Your task to perform on an android device: turn notification dots on Image 0: 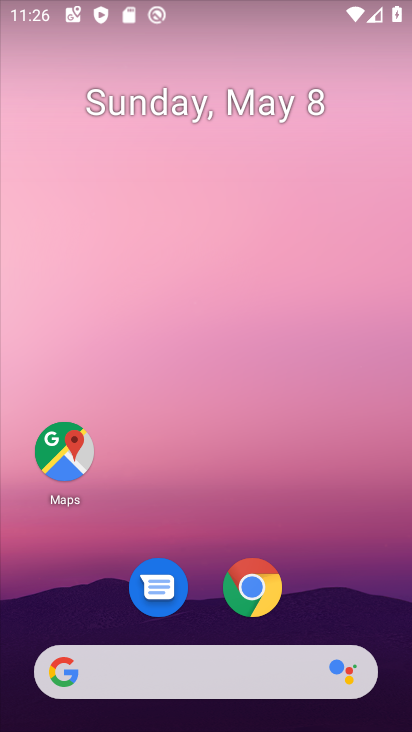
Step 0: drag from (345, 566) to (207, 187)
Your task to perform on an android device: turn notification dots on Image 1: 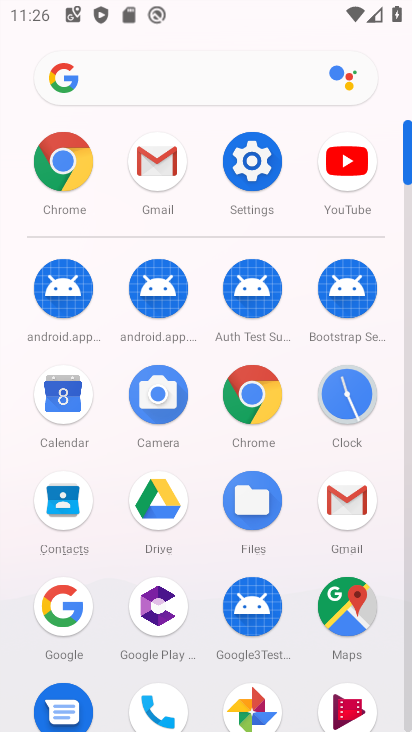
Step 1: click (252, 157)
Your task to perform on an android device: turn notification dots on Image 2: 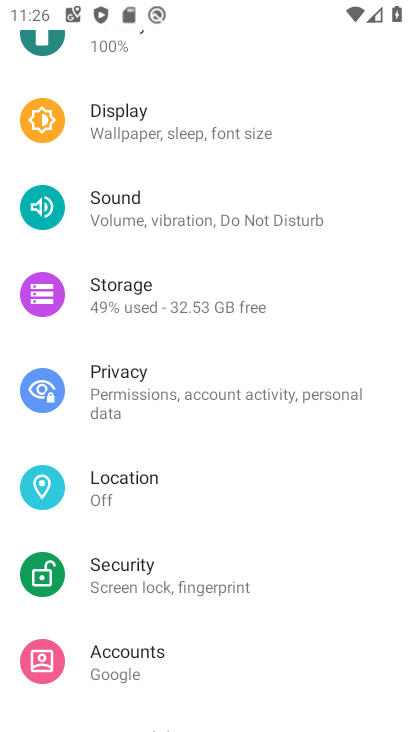
Step 2: drag from (200, 502) to (129, 26)
Your task to perform on an android device: turn notification dots on Image 3: 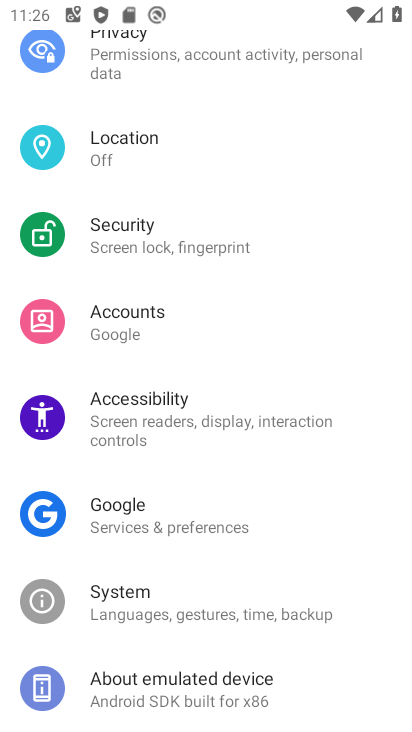
Step 3: drag from (146, 198) to (210, 367)
Your task to perform on an android device: turn notification dots on Image 4: 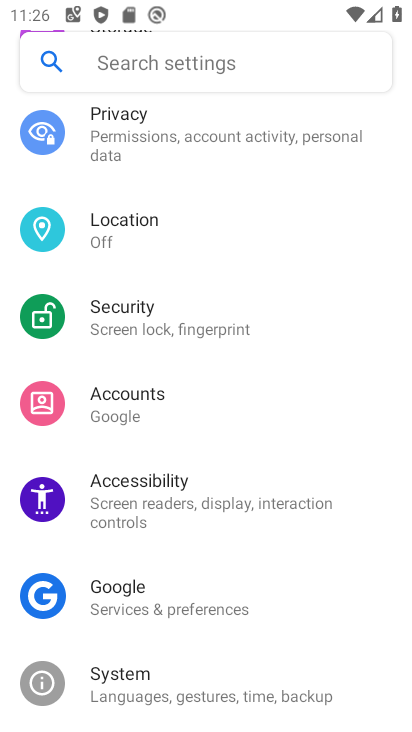
Step 4: drag from (149, 239) to (231, 555)
Your task to perform on an android device: turn notification dots on Image 5: 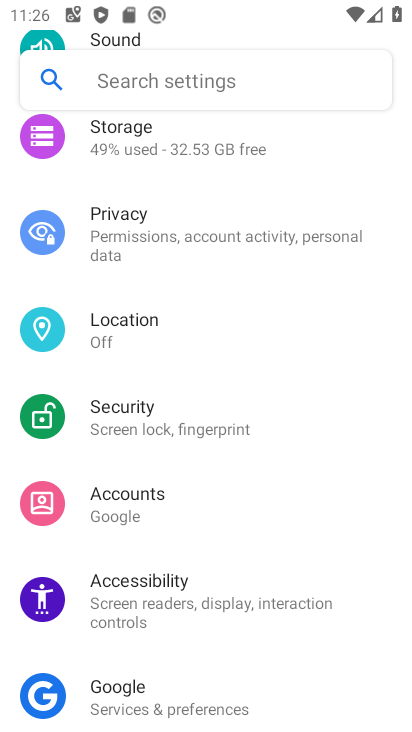
Step 5: drag from (142, 352) to (149, 533)
Your task to perform on an android device: turn notification dots on Image 6: 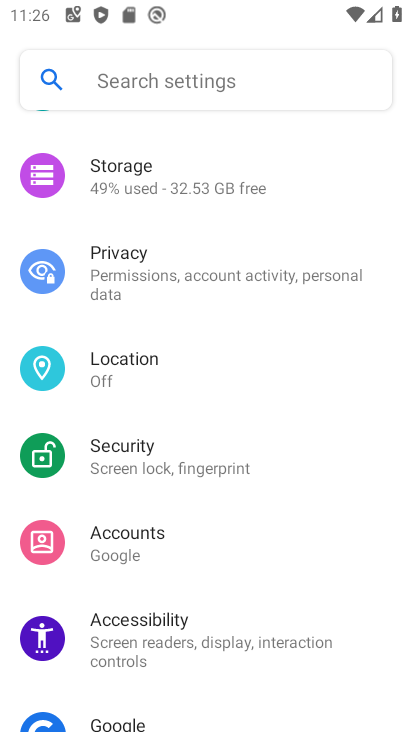
Step 6: drag from (142, 246) to (239, 533)
Your task to perform on an android device: turn notification dots on Image 7: 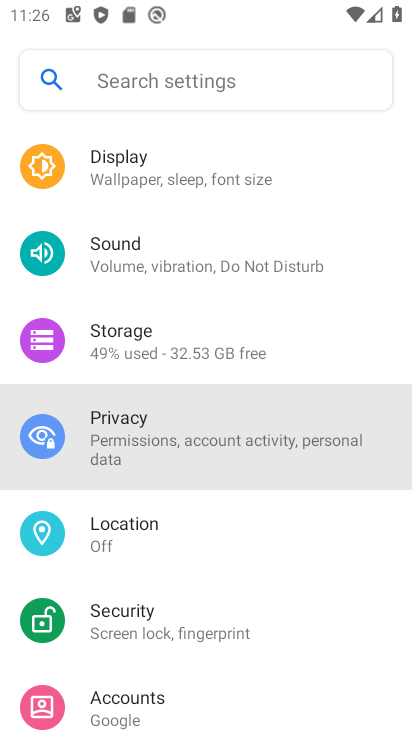
Step 7: drag from (134, 342) to (194, 627)
Your task to perform on an android device: turn notification dots on Image 8: 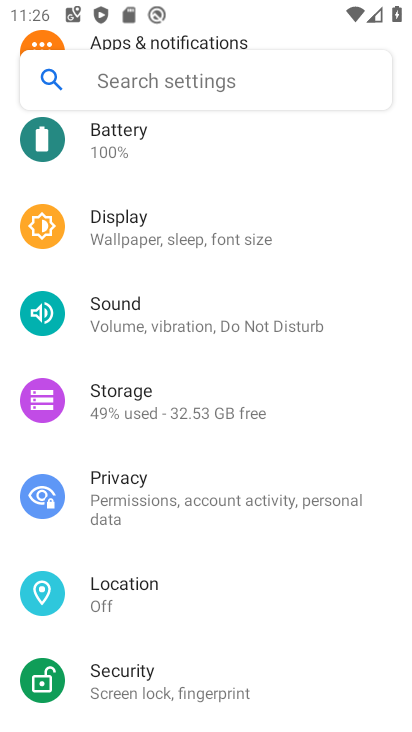
Step 8: drag from (173, 317) to (201, 638)
Your task to perform on an android device: turn notification dots on Image 9: 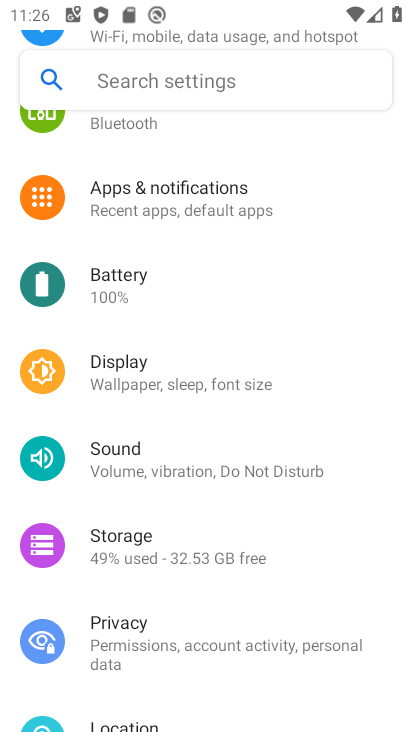
Step 9: drag from (133, 470) to (174, 134)
Your task to perform on an android device: turn notification dots on Image 10: 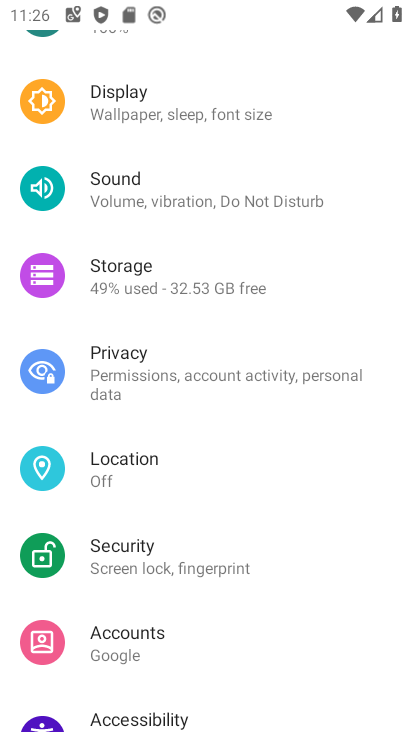
Step 10: drag from (219, 410) to (177, 25)
Your task to perform on an android device: turn notification dots on Image 11: 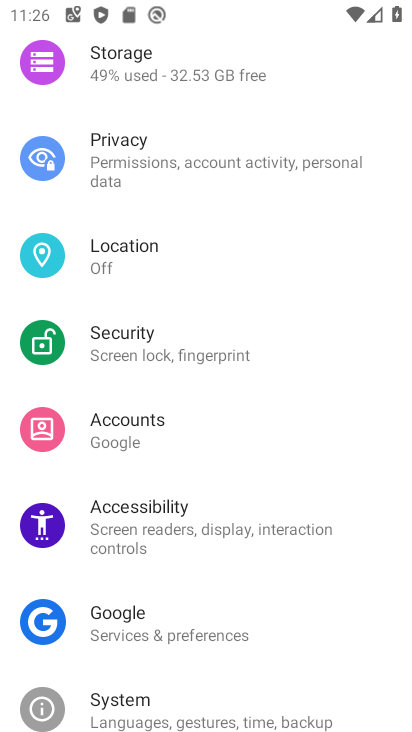
Step 11: drag from (149, 390) to (168, 662)
Your task to perform on an android device: turn notification dots on Image 12: 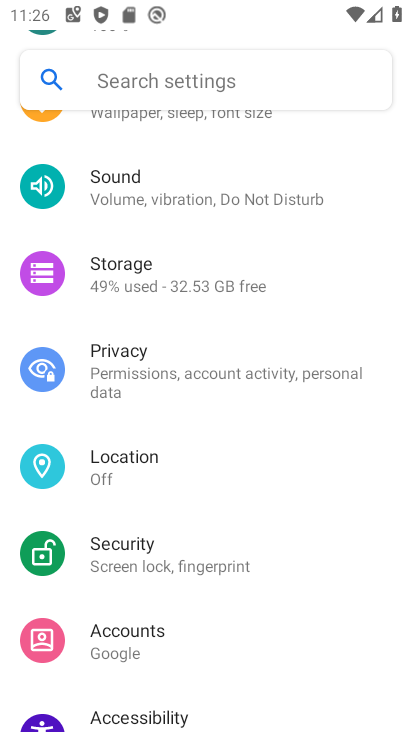
Step 12: drag from (238, 317) to (319, 601)
Your task to perform on an android device: turn notification dots on Image 13: 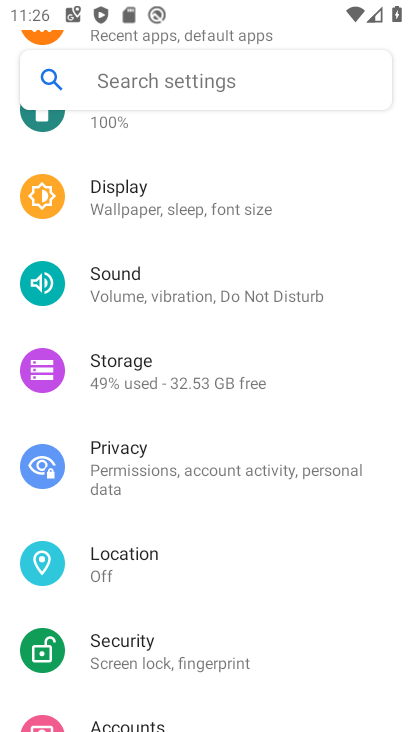
Step 13: click (291, 512)
Your task to perform on an android device: turn notification dots on Image 14: 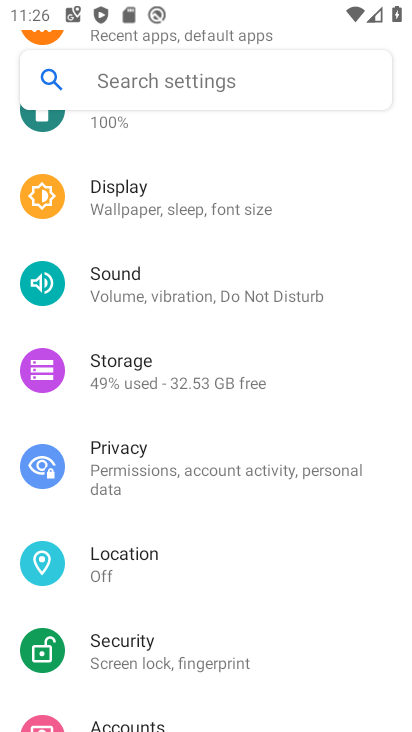
Step 14: drag from (199, 273) to (266, 576)
Your task to perform on an android device: turn notification dots on Image 15: 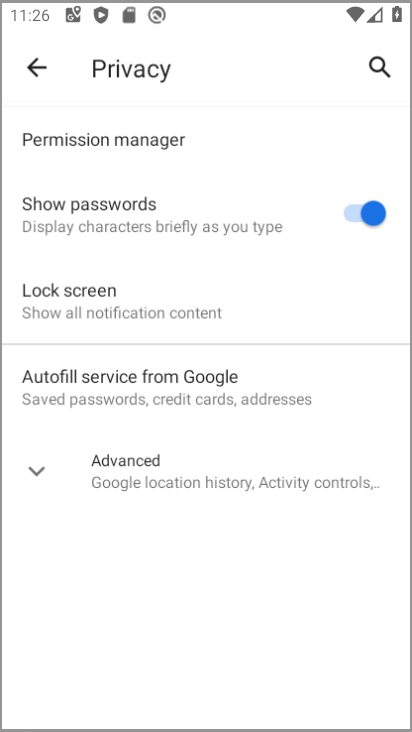
Step 15: drag from (247, 223) to (353, 626)
Your task to perform on an android device: turn notification dots on Image 16: 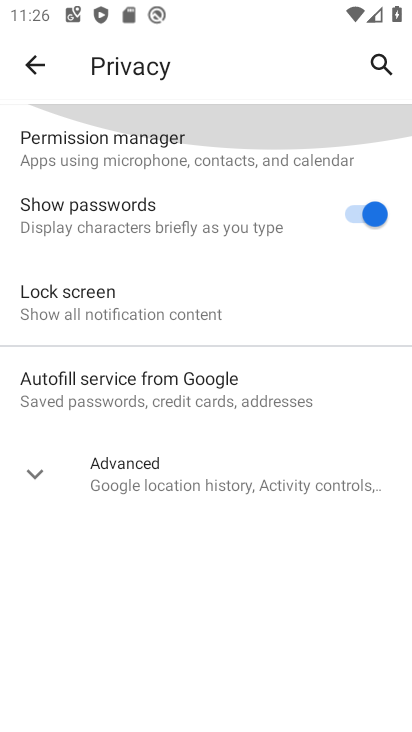
Step 16: drag from (290, 186) to (272, 588)
Your task to perform on an android device: turn notification dots on Image 17: 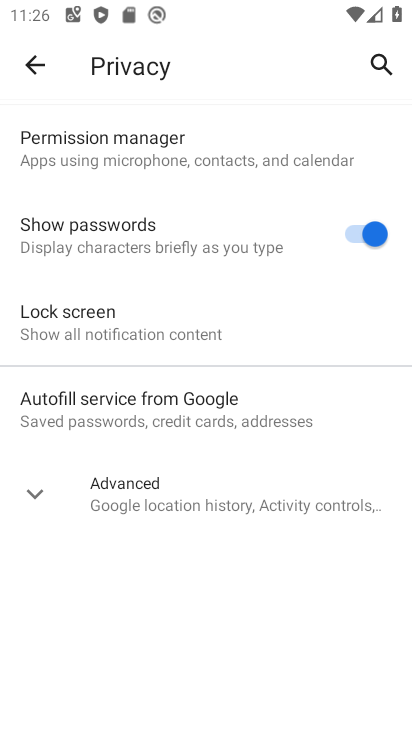
Step 17: click (33, 67)
Your task to perform on an android device: turn notification dots on Image 18: 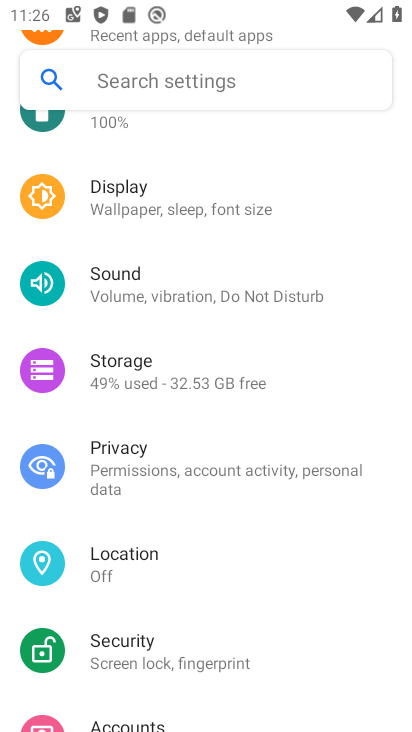
Step 18: drag from (136, 273) to (176, 478)
Your task to perform on an android device: turn notification dots on Image 19: 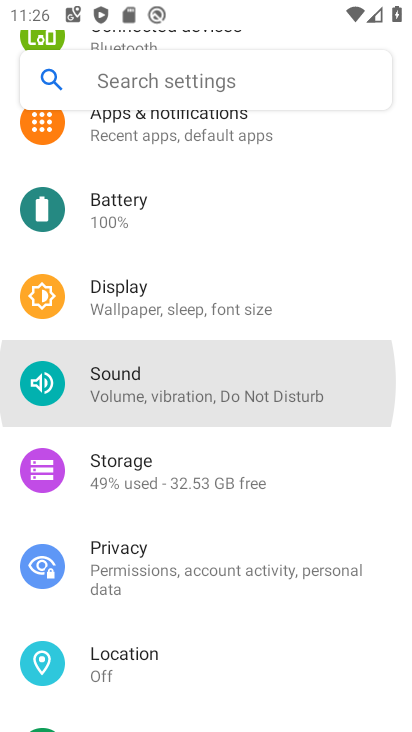
Step 19: drag from (102, 211) to (158, 493)
Your task to perform on an android device: turn notification dots on Image 20: 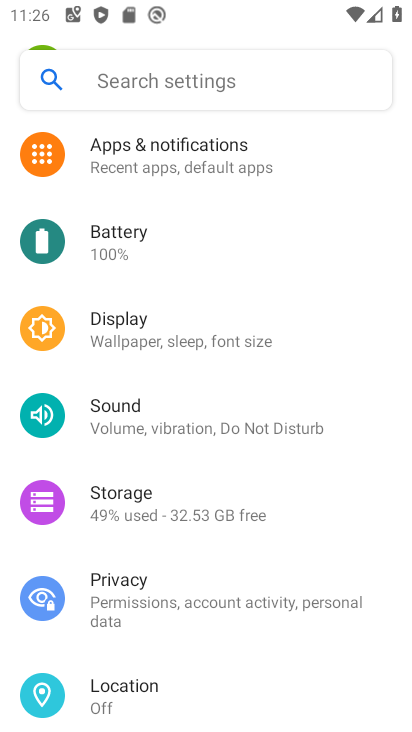
Step 20: drag from (136, 310) to (252, 547)
Your task to perform on an android device: turn notification dots on Image 21: 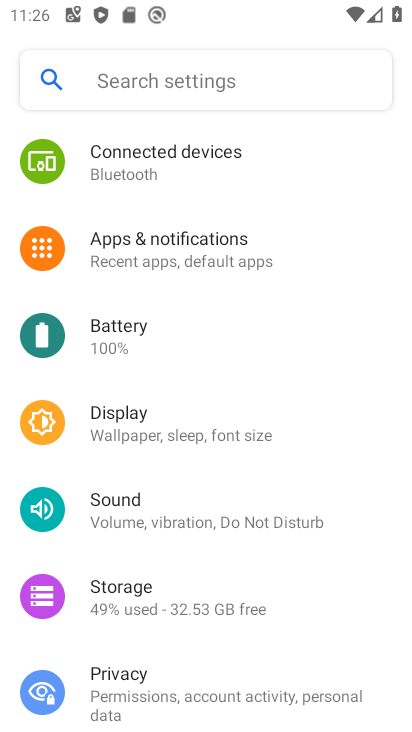
Step 21: click (159, 258)
Your task to perform on an android device: turn notification dots on Image 22: 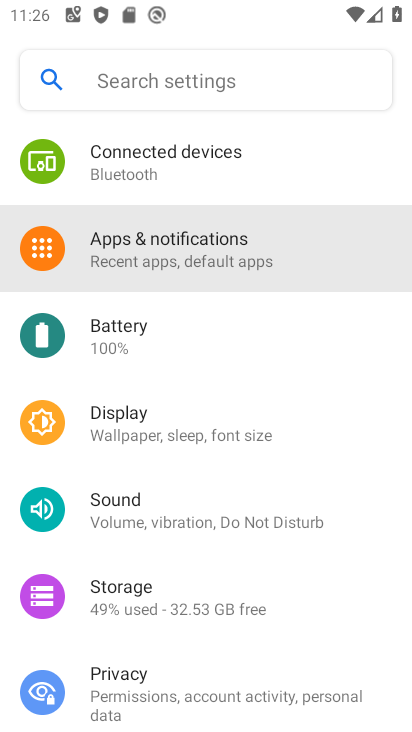
Step 22: click (160, 256)
Your task to perform on an android device: turn notification dots on Image 23: 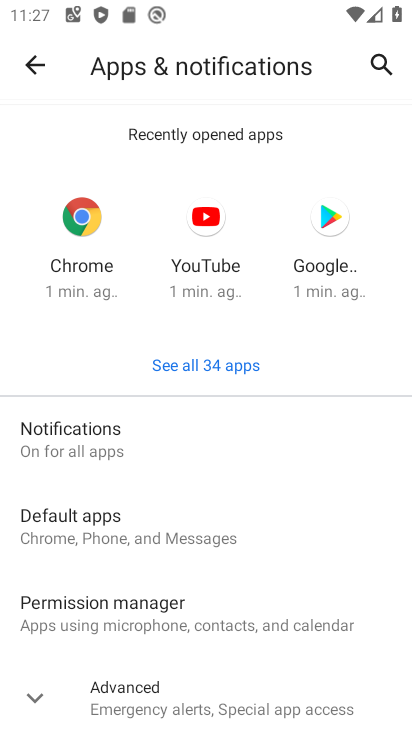
Step 23: click (75, 437)
Your task to perform on an android device: turn notification dots on Image 24: 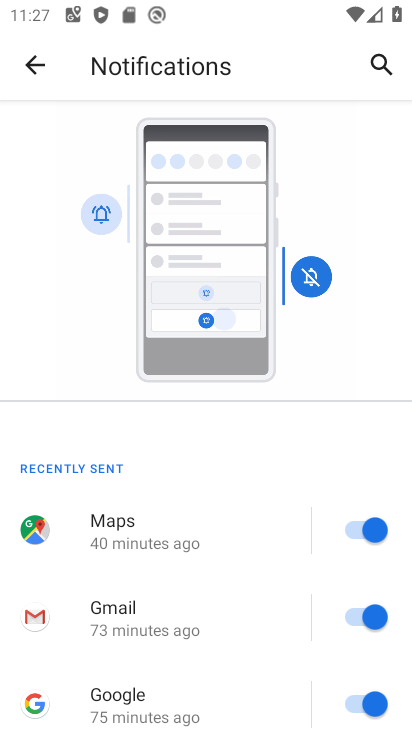
Step 24: click (36, 62)
Your task to perform on an android device: turn notification dots on Image 25: 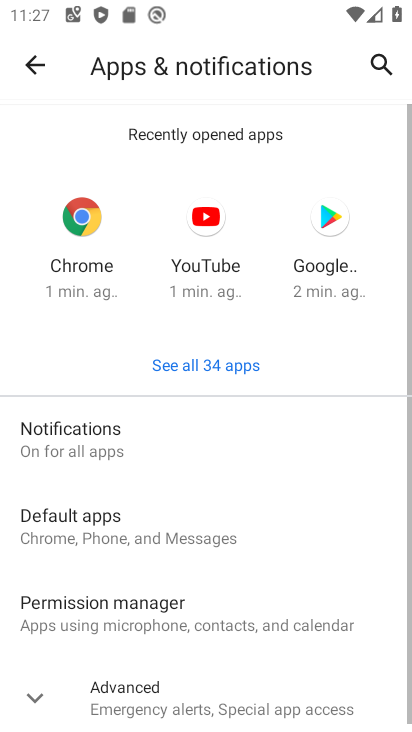
Step 25: drag from (271, 613) to (200, 155)
Your task to perform on an android device: turn notification dots on Image 26: 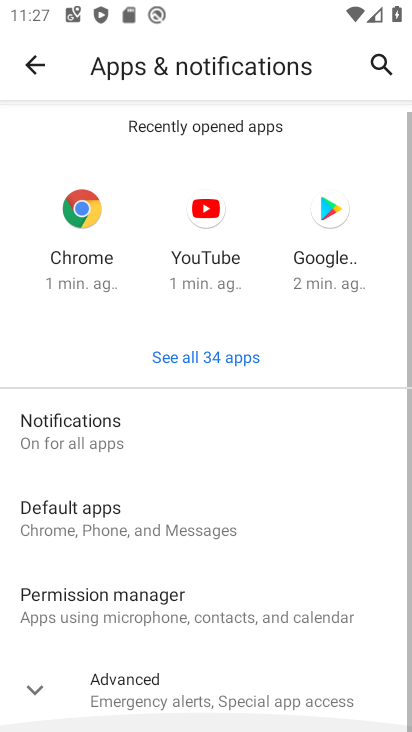
Step 26: drag from (222, 462) to (205, 156)
Your task to perform on an android device: turn notification dots on Image 27: 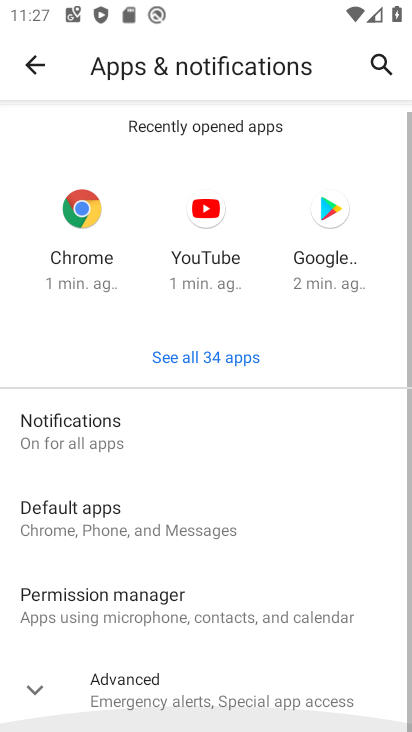
Step 27: drag from (207, 572) to (193, 239)
Your task to perform on an android device: turn notification dots on Image 28: 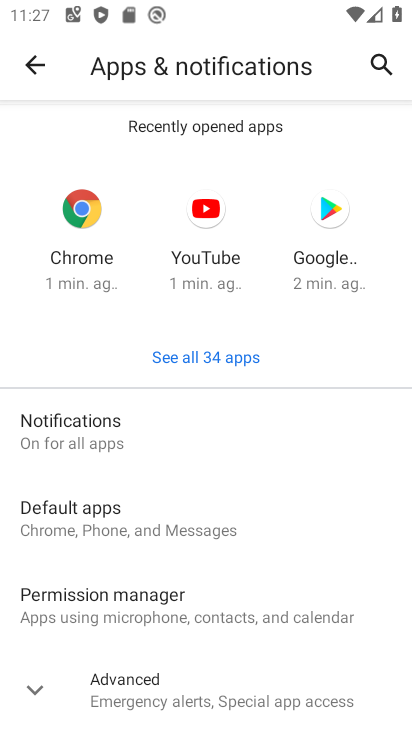
Step 28: click (133, 689)
Your task to perform on an android device: turn notification dots on Image 29: 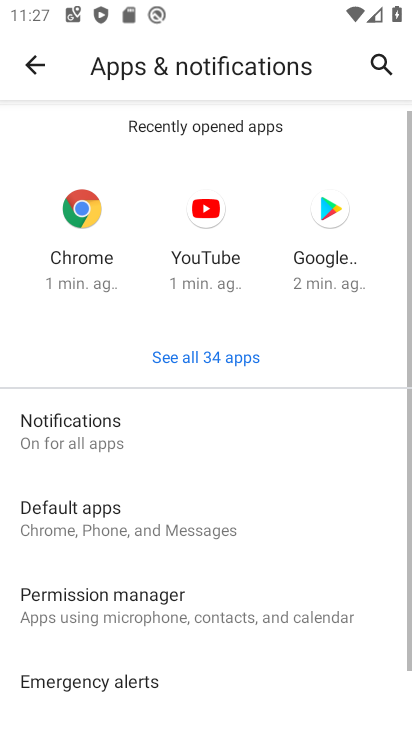
Step 29: drag from (204, 628) to (120, 191)
Your task to perform on an android device: turn notification dots on Image 30: 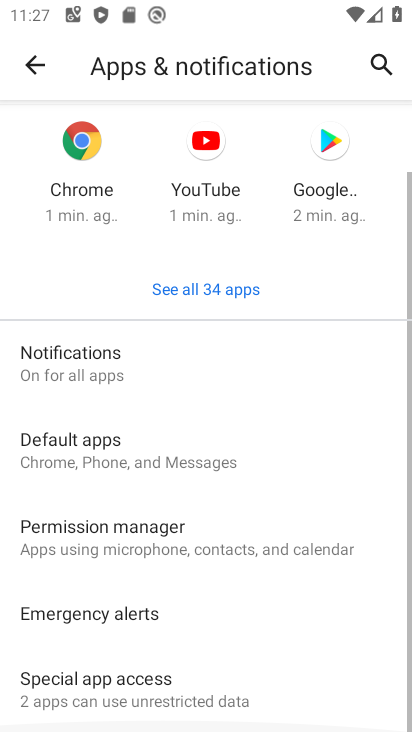
Step 30: drag from (202, 430) to (173, 72)
Your task to perform on an android device: turn notification dots on Image 31: 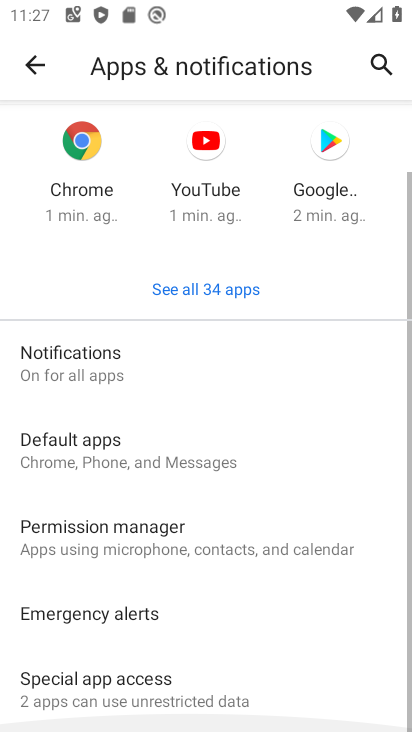
Step 31: drag from (201, 425) to (193, 31)
Your task to perform on an android device: turn notification dots on Image 32: 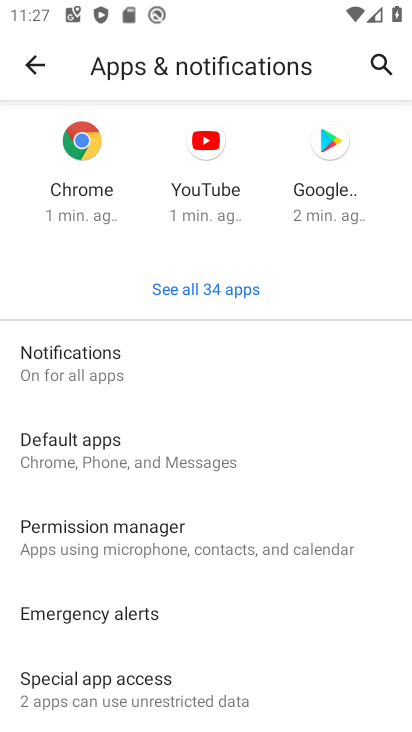
Step 32: click (48, 365)
Your task to perform on an android device: turn notification dots on Image 33: 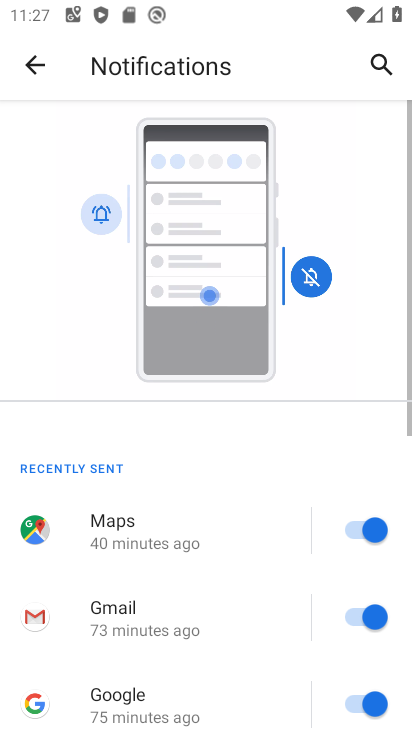
Step 33: drag from (172, 557) to (155, 57)
Your task to perform on an android device: turn notification dots on Image 34: 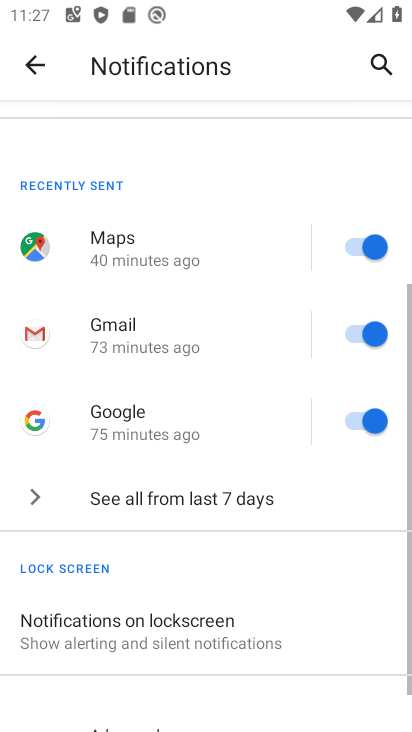
Step 34: drag from (175, 474) to (189, 187)
Your task to perform on an android device: turn notification dots on Image 35: 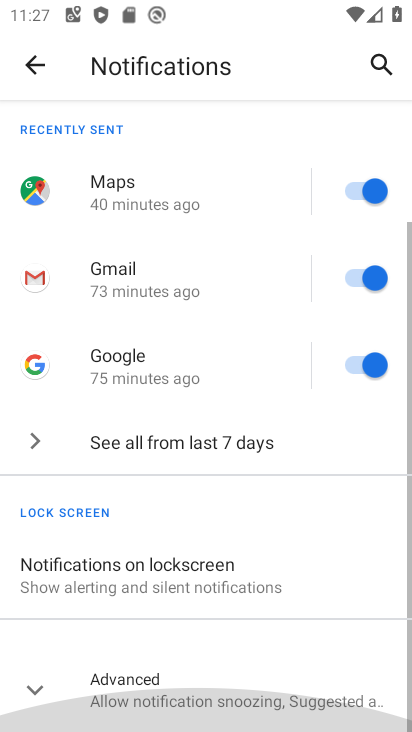
Step 35: drag from (181, 589) to (198, 133)
Your task to perform on an android device: turn notification dots on Image 36: 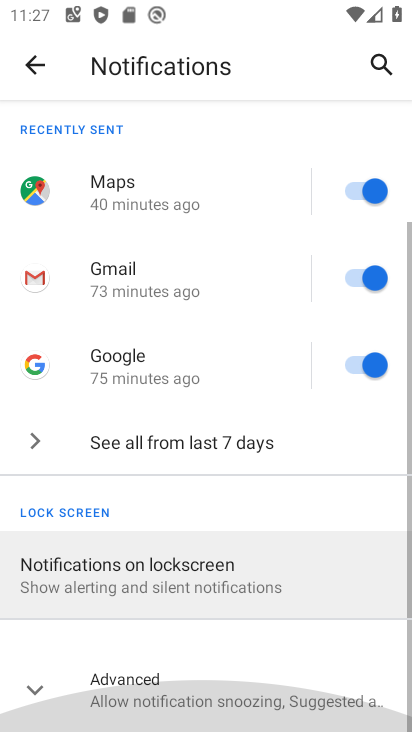
Step 36: drag from (200, 672) to (221, 181)
Your task to perform on an android device: turn notification dots on Image 37: 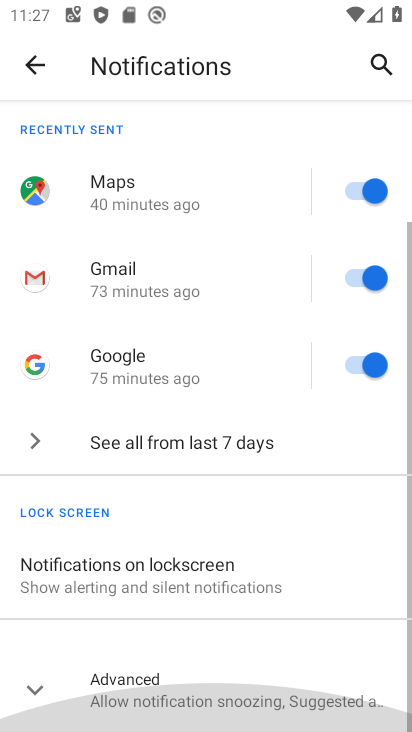
Step 37: drag from (240, 552) to (254, 217)
Your task to perform on an android device: turn notification dots on Image 38: 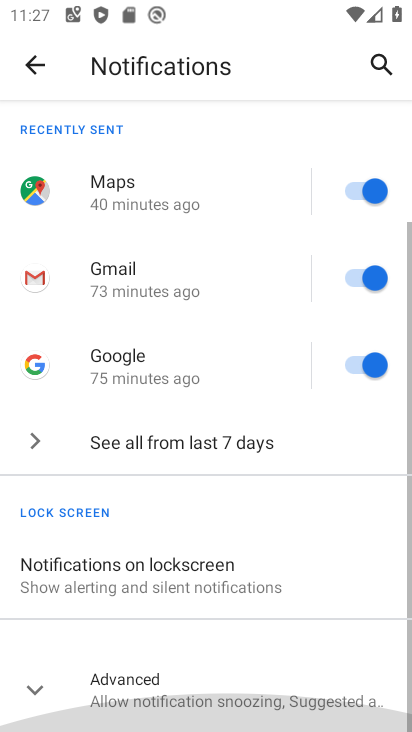
Step 38: drag from (261, 467) to (257, 56)
Your task to perform on an android device: turn notification dots on Image 39: 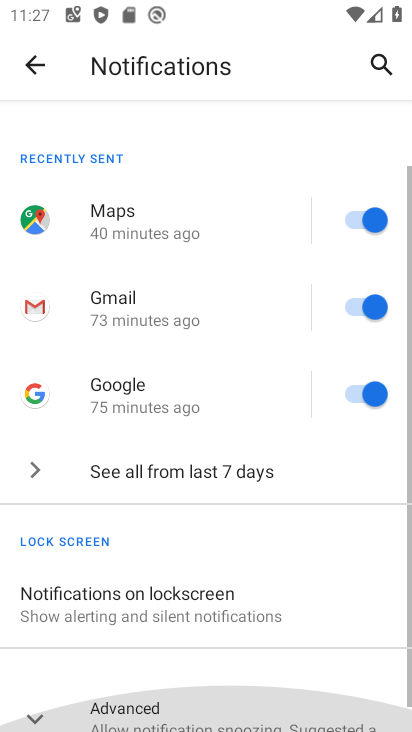
Step 39: drag from (230, 483) to (138, 0)
Your task to perform on an android device: turn notification dots on Image 40: 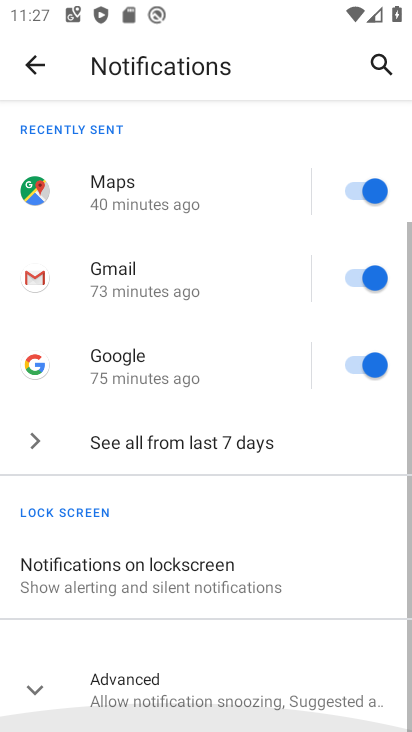
Step 40: drag from (250, 602) to (182, 38)
Your task to perform on an android device: turn notification dots on Image 41: 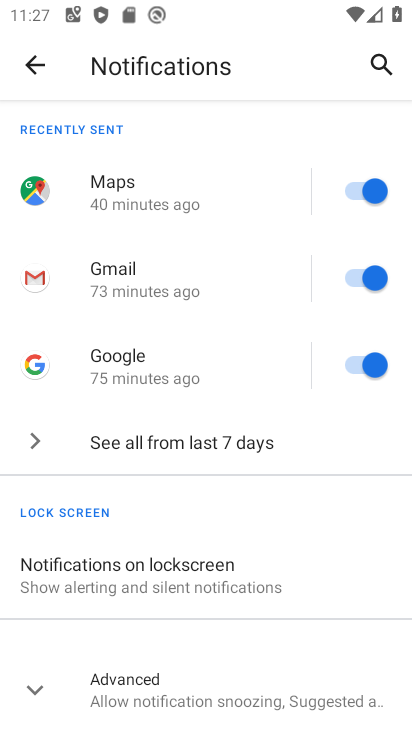
Step 41: click (154, 706)
Your task to perform on an android device: turn notification dots on Image 42: 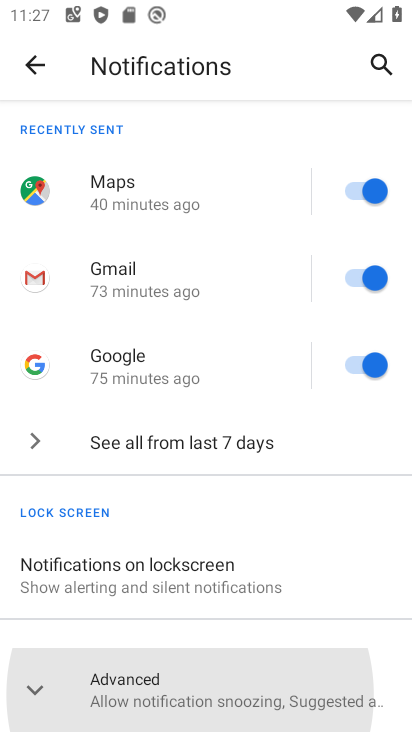
Step 42: click (156, 698)
Your task to perform on an android device: turn notification dots on Image 43: 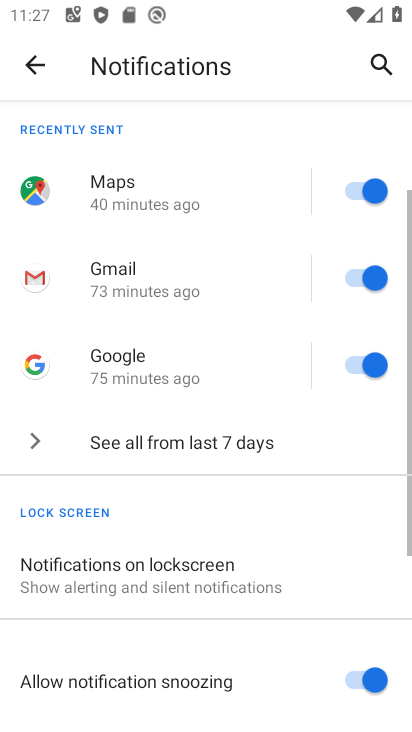
Step 43: drag from (227, 616) to (146, 176)
Your task to perform on an android device: turn notification dots on Image 44: 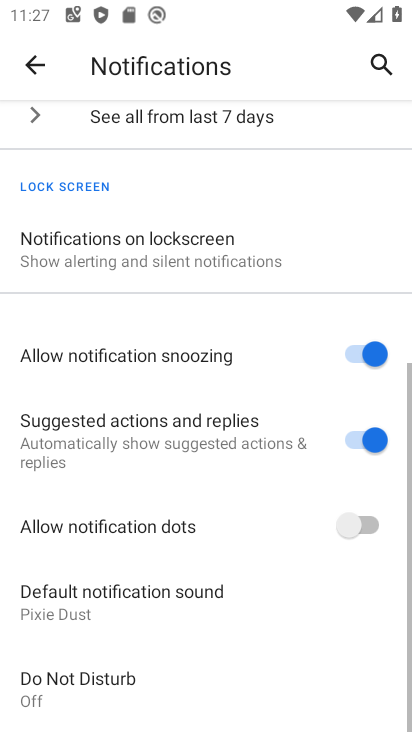
Step 44: drag from (251, 707) to (183, 340)
Your task to perform on an android device: turn notification dots on Image 45: 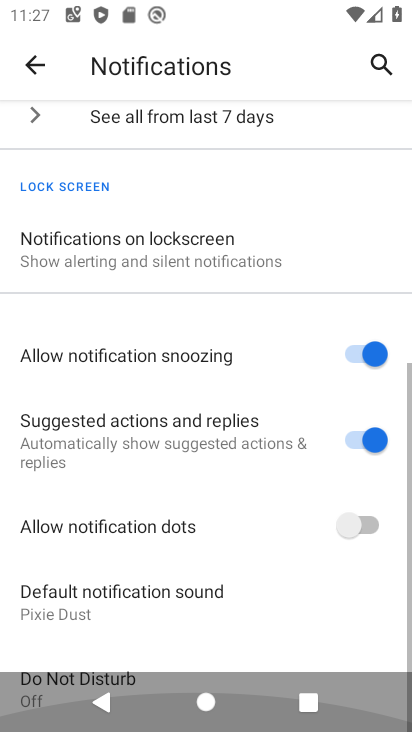
Step 45: drag from (278, 661) to (225, 364)
Your task to perform on an android device: turn notification dots on Image 46: 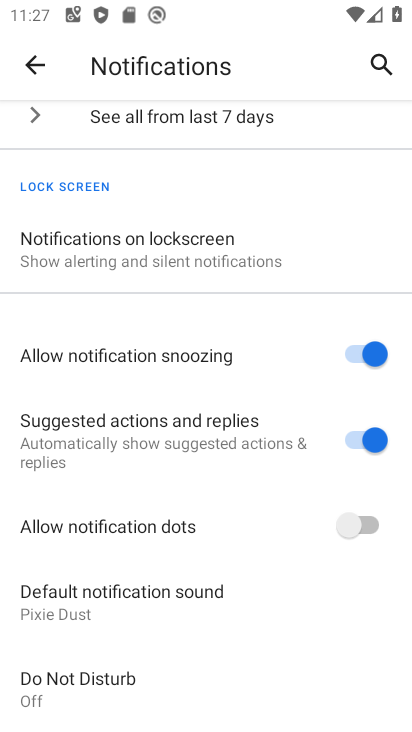
Step 46: click (349, 517)
Your task to perform on an android device: turn notification dots on Image 47: 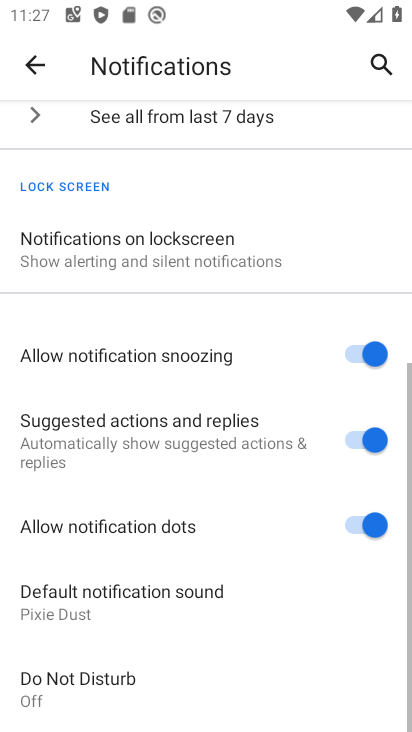
Step 47: task complete